Your task to perform on an android device: Go to Maps Image 0: 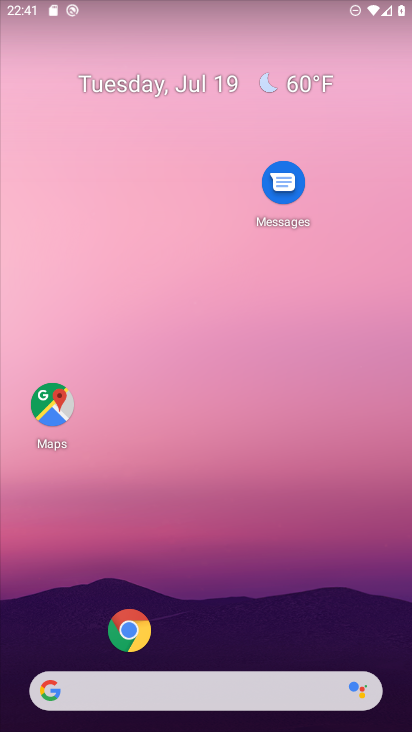
Step 0: click (63, 414)
Your task to perform on an android device: Go to Maps Image 1: 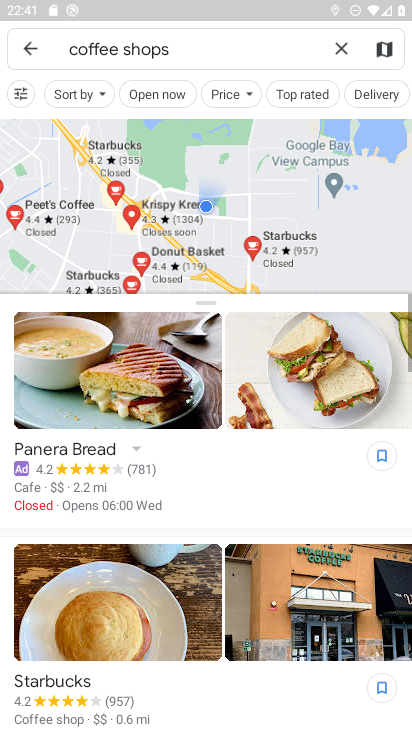
Step 1: click (30, 51)
Your task to perform on an android device: Go to Maps Image 2: 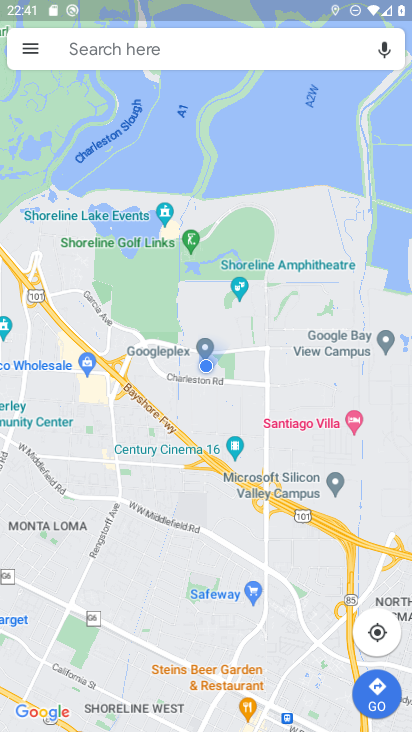
Step 2: click (32, 42)
Your task to perform on an android device: Go to Maps Image 3: 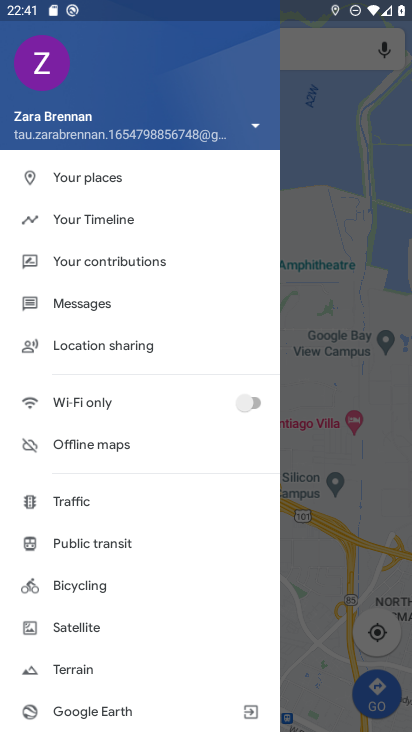
Step 3: click (357, 366)
Your task to perform on an android device: Go to Maps Image 4: 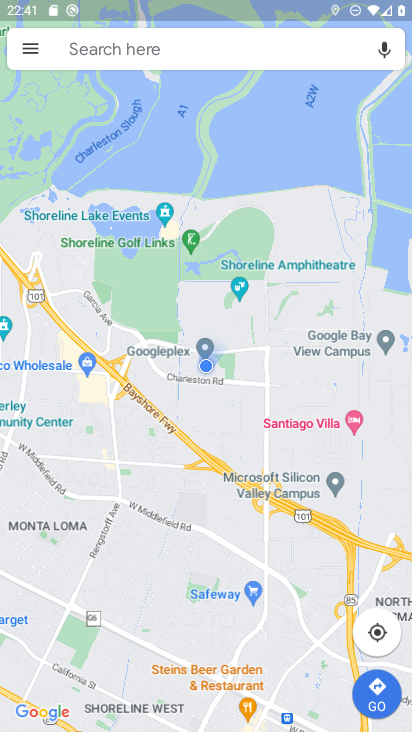
Step 4: task complete